Your task to perform on an android device: Open Chrome and go to the settings page Image 0: 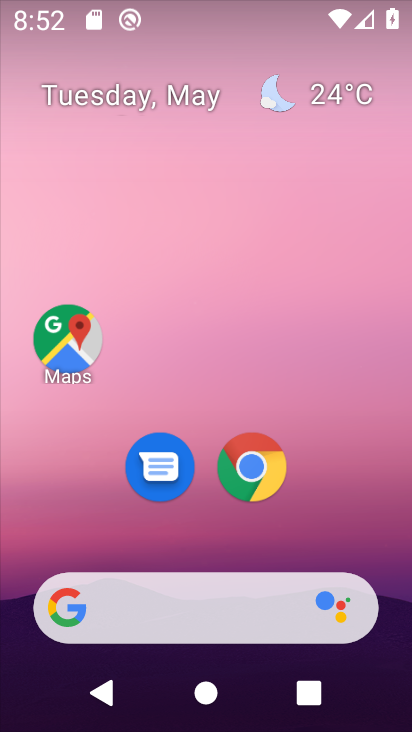
Step 0: click (251, 442)
Your task to perform on an android device: Open Chrome and go to the settings page Image 1: 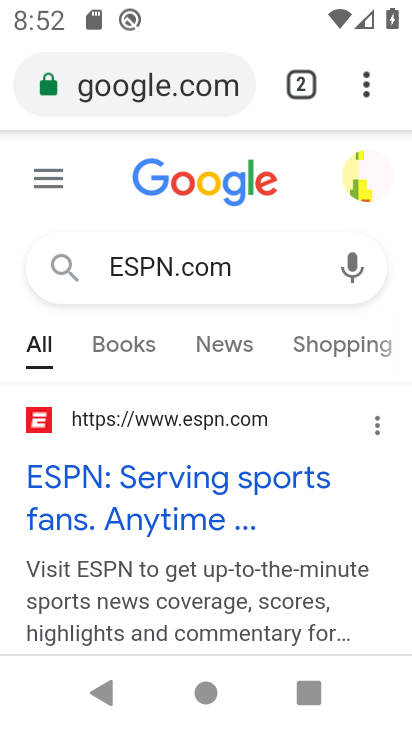
Step 1: click (367, 76)
Your task to perform on an android device: Open Chrome and go to the settings page Image 2: 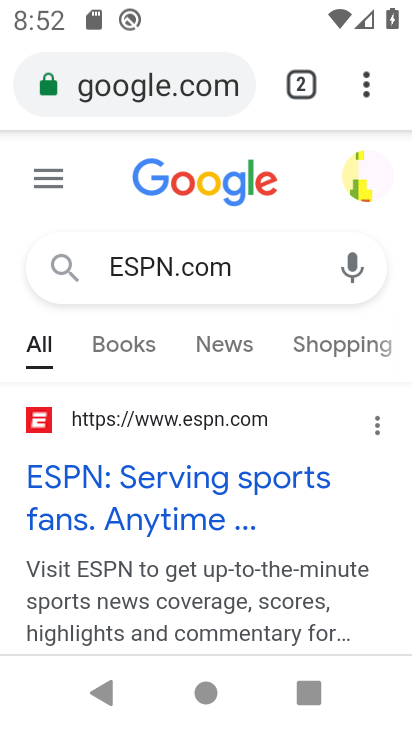
Step 2: click (362, 82)
Your task to perform on an android device: Open Chrome and go to the settings page Image 3: 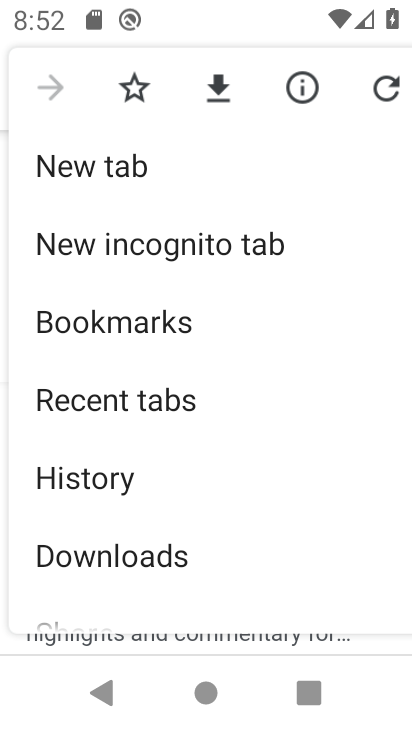
Step 3: drag from (264, 571) to (285, 202)
Your task to perform on an android device: Open Chrome and go to the settings page Image 4: 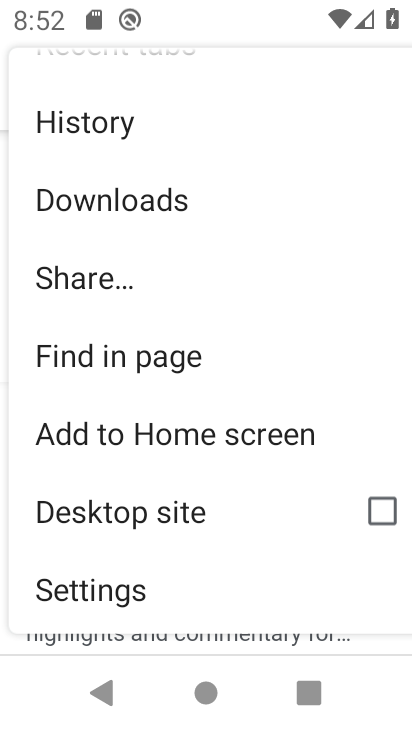
Step 4: click (129, 592)
Your task to perform on an android device: Open Chrome and go to the settings page Image 5: 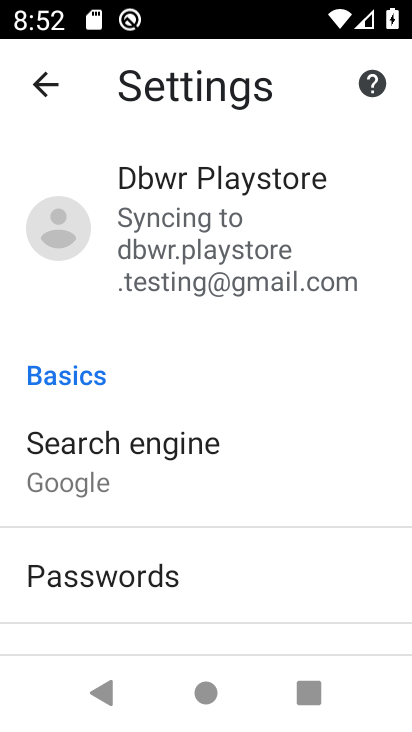
Step 5: task complete